Your task to perform on an android device: Open Google Chrome and open the bookmarks view Image 0: 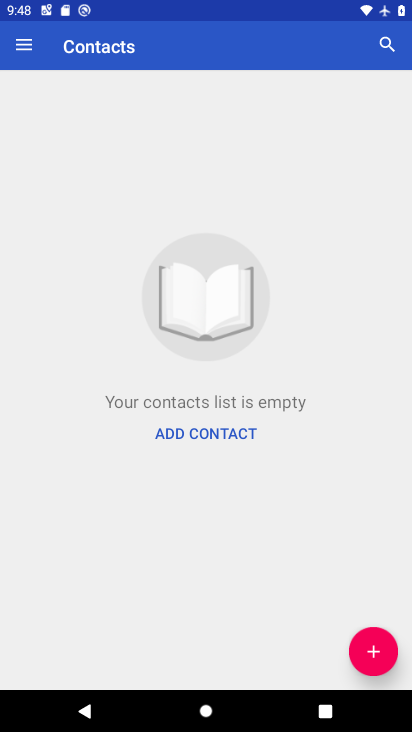
Step 0: press home button
Your task to perform on an android device: Open Google Chrome and open the bookmarks view Image 1: 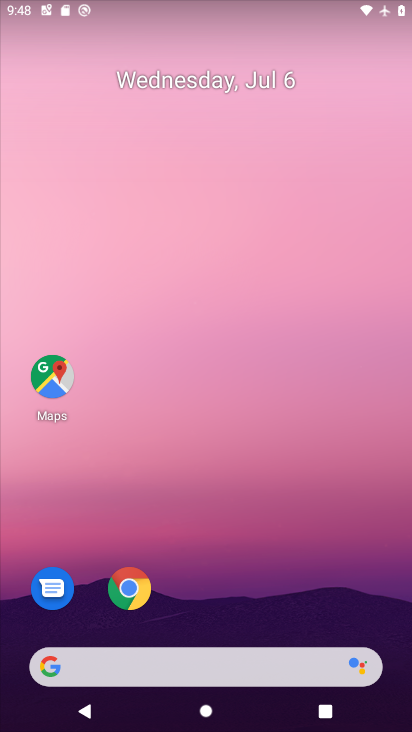
Step 1: click (126, 595)
Your task to perform on an android device: Open Google Chrome and open the bookmarks view Image 2: 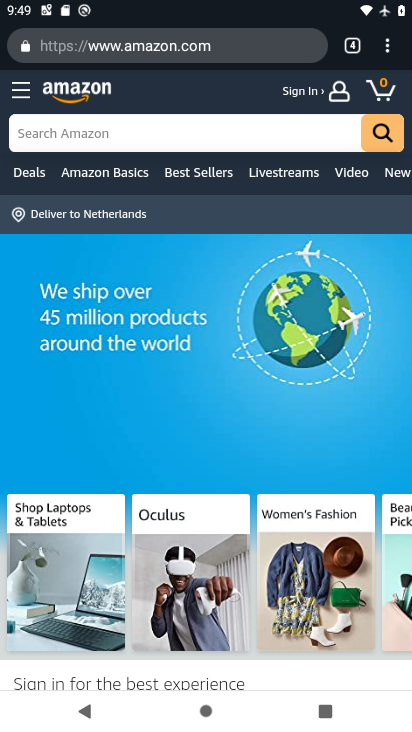
Step 2: click (383, 57)
Your task to perform on an android device: Open Google Chrome and open the bookmarks view Image 3: 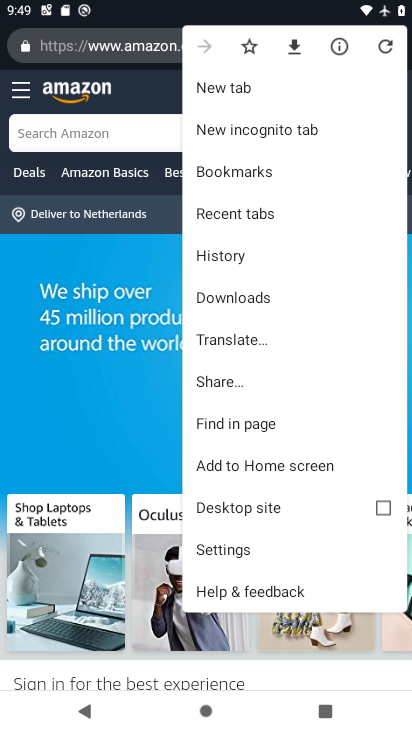
Step 3: click (263, 168)
Your task to perform on an android device: Open Google Chrome and open the bookmarks view Image 4: 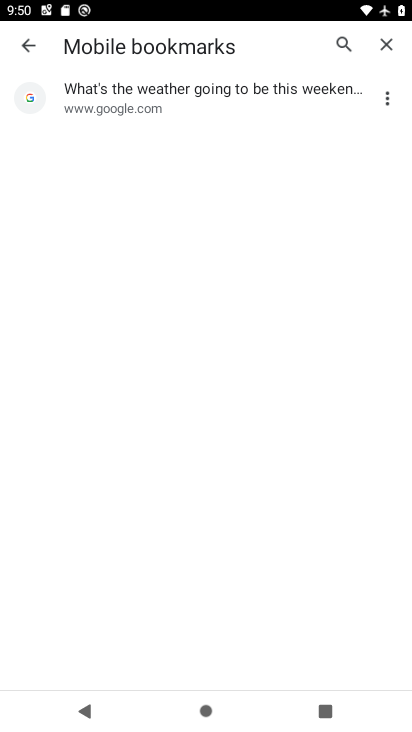
Step 4: task complete